Your task to perform on an android device: choose inbox layout in the gmail app Image 0: 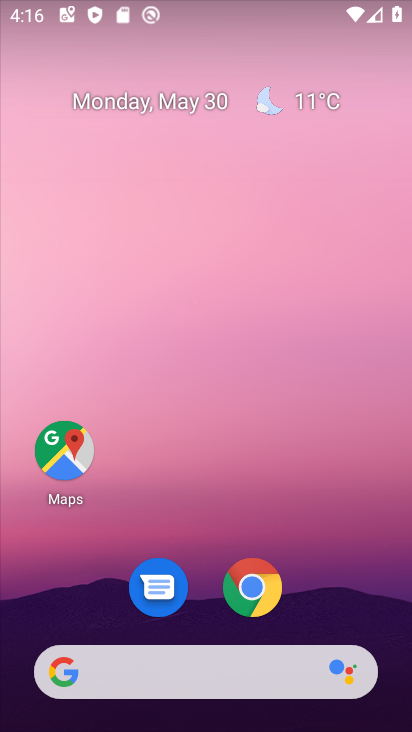
Step 0: drag from (372, 564) to (261, 236)
Your task to perform on an android device: choose inbox layout in the gmail app Image 1: 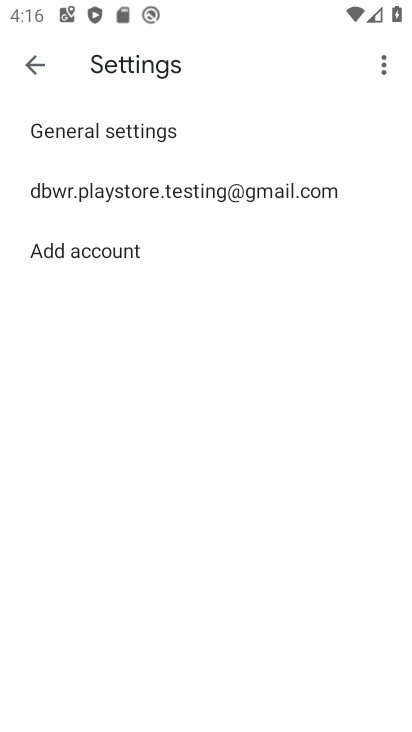
Step 1: click (204, 188)
Your task to perform on an android device: choose inbox layout in the gmail app Image 2: 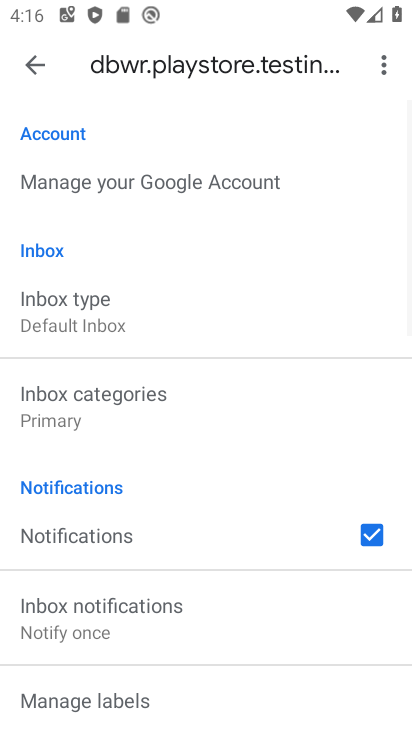
Step 2: click (166, 298)
Your task to perform on an android device: choose inbox layout in the gmail app Image 3: 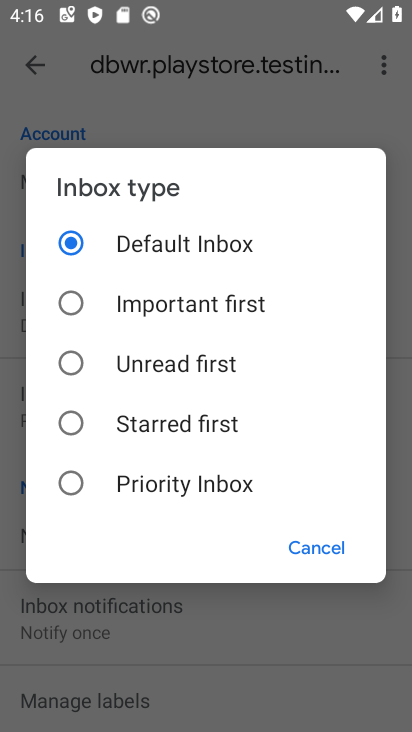
Step 3: click (173, 449)
Your task to perform on an android device: choose inbox layout in the gmail app Image 4: 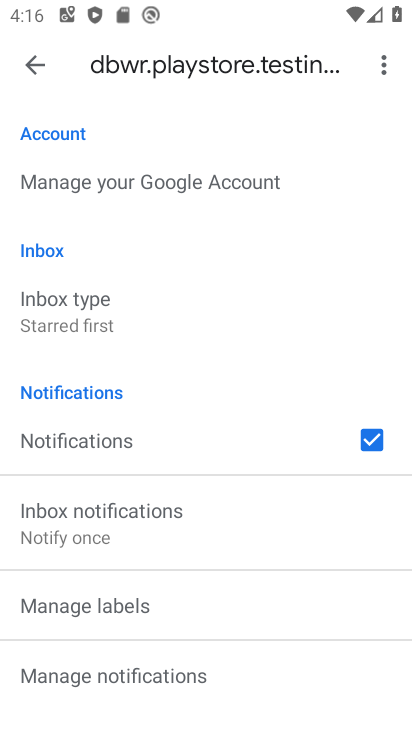
Step 4: task complete